Your task to perform on an android device: Open notification settings Image 0: 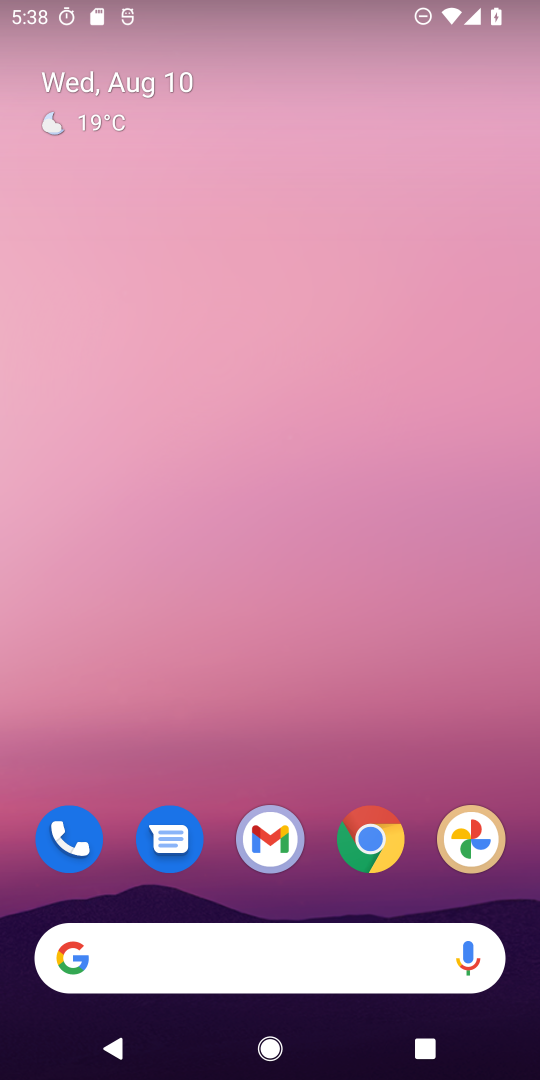
Step 0: drag from (18, 1045) to (199, 351)
Your task to perform on an android device: Open notification settings Image 1: 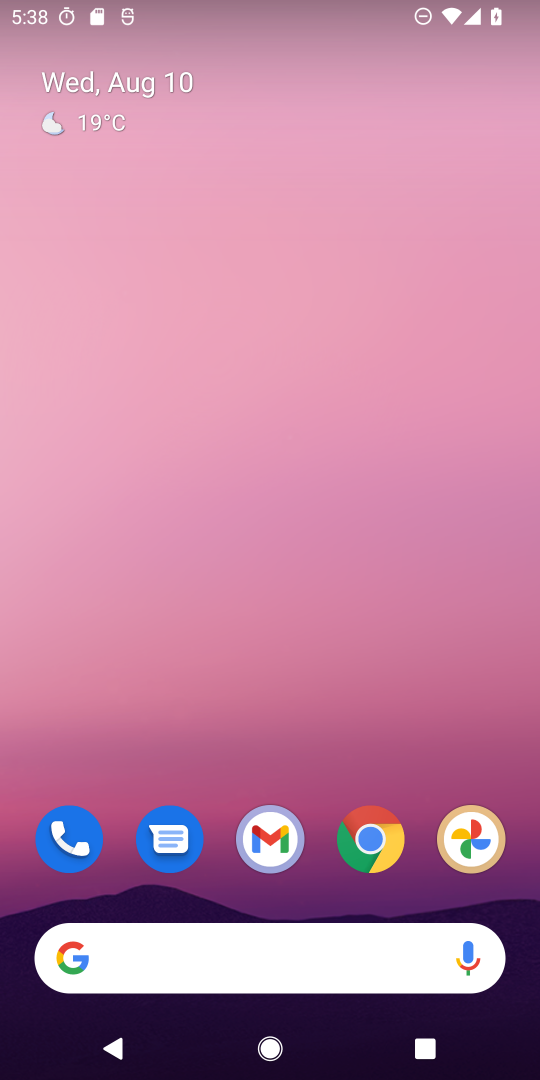
Step 1: drag from (61, 1024) to (328, 377)
Your task to perform on an android device: Open notification settings Image 2: 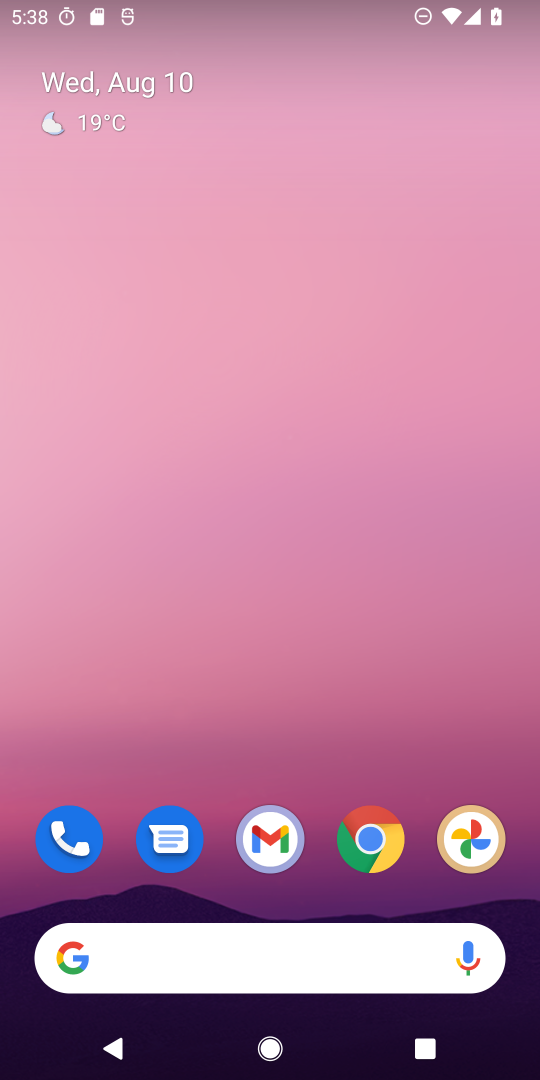
Step 2: drag from (49, 1031) to (372, 375)
Your task to perform on an android device: Open notification settings Image 3: 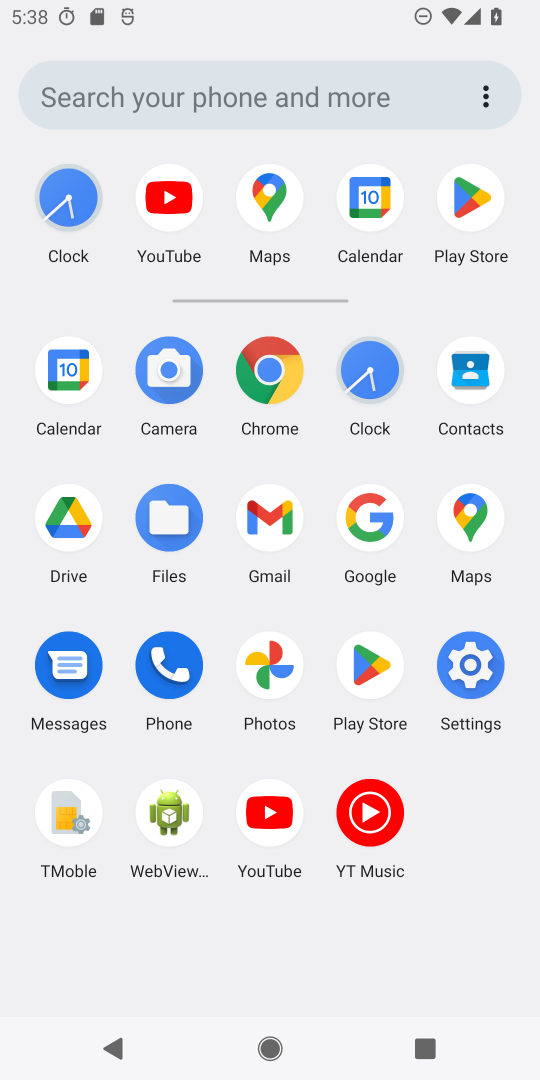
Step 3: click (474, 684)
Your task to perform on an android device: Open notification settings Image 4: 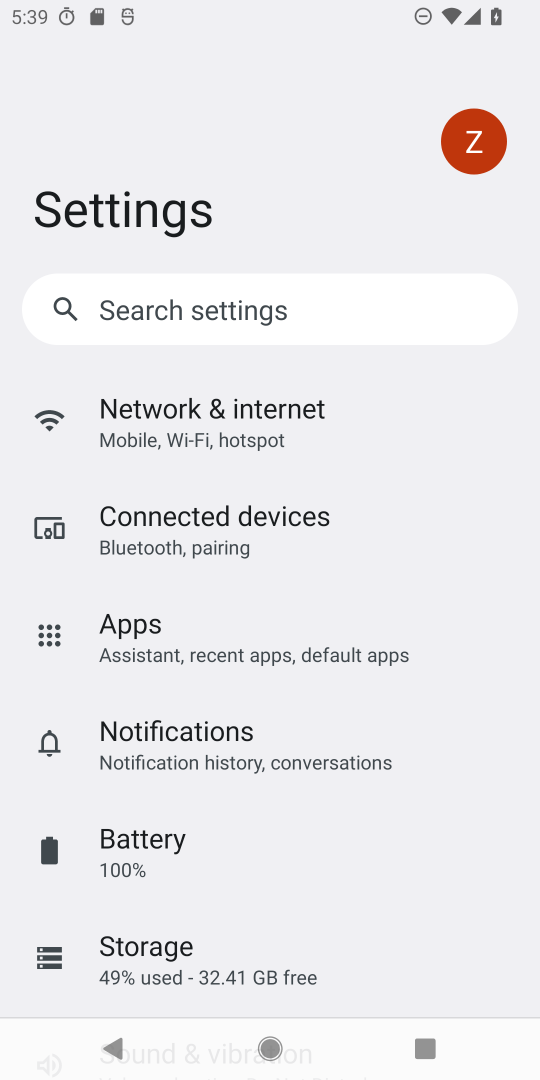
Step 4: click (147, 741)
Your task to perform on an android device: Open notification settings Image 5: 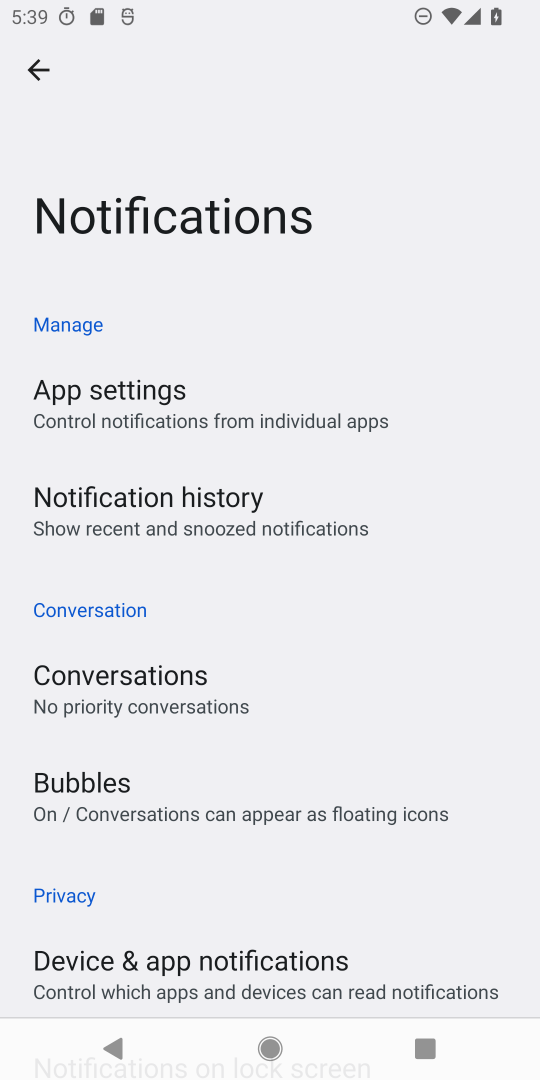
Step 5: click (153, 396)
Your task to perform on an android device: Open notification settings Image 6: 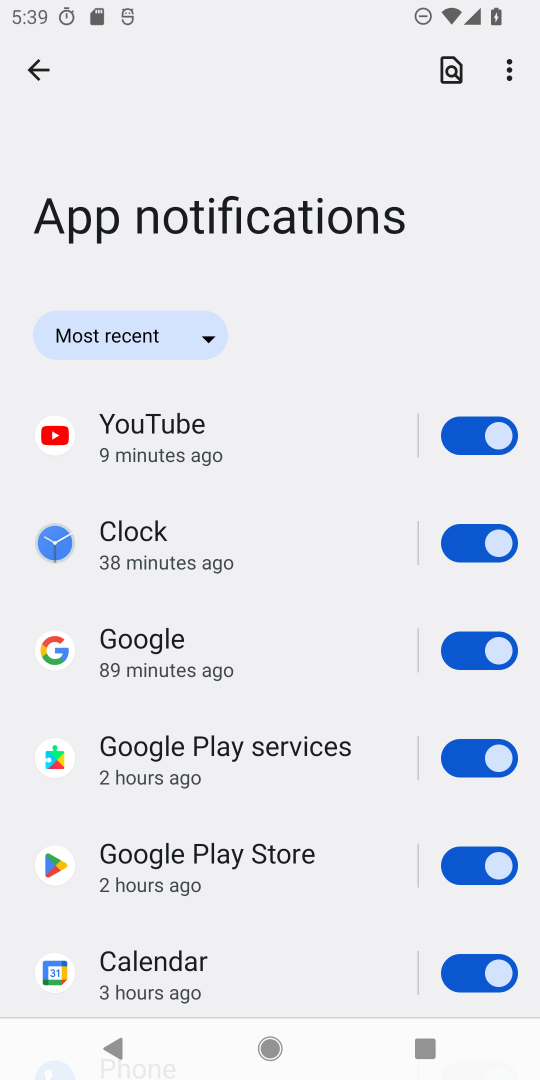
Step 6: task complete